Your task to perform on an android device: find photos in the google photos app Image 0: 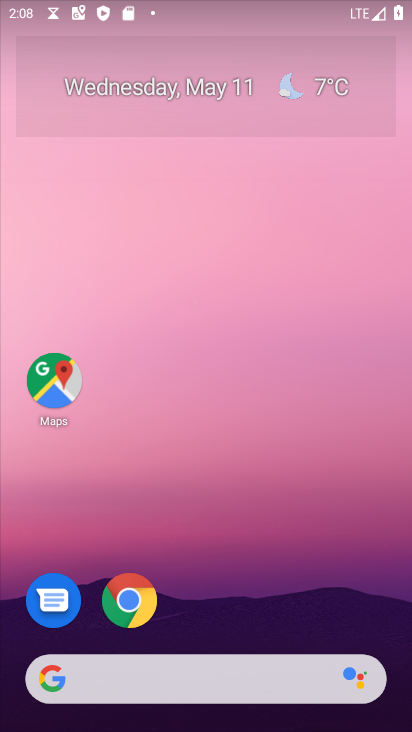
Step 0: drag from (281, 539) to (123, 90)
Your task to perform on an android device: find photos in the google photos app Image 1: 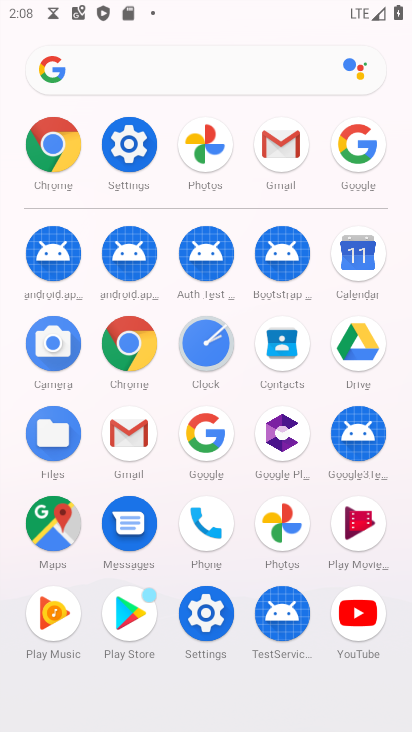
Step 1: click (285, 524)
Your task to perform on an android device: find photos in the google photos app Image 2: 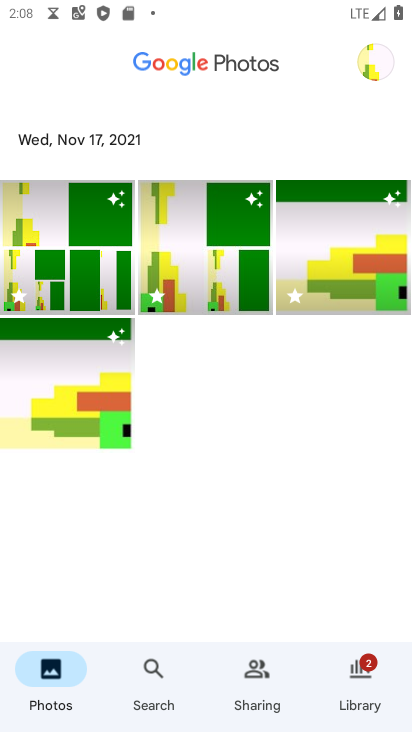
Step 2: task complete